Your task to perform on an android device: Open calendar and show me the first week of next month Image 0: 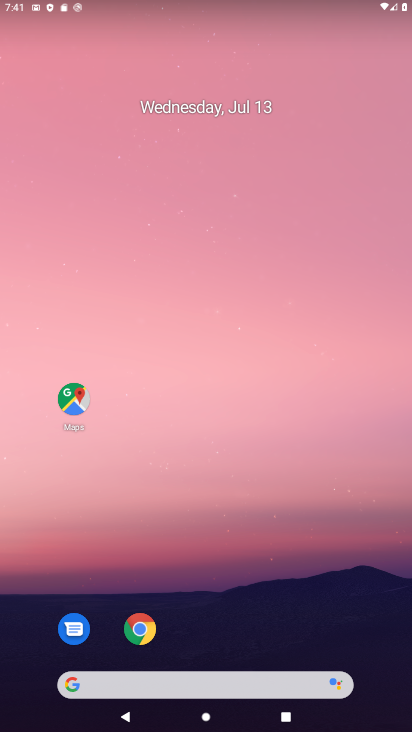
Step 0: drag from (216, 645) to (226, 114)
Your task to perform on an android device: Open calendar and show me the first week of next month Image 1: 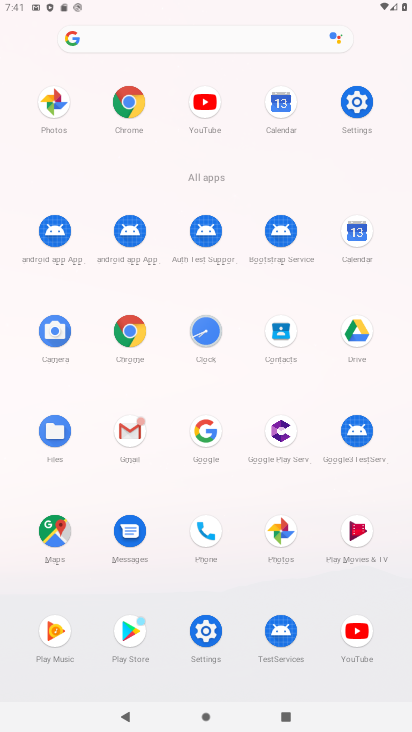
Step 1: click (355, 233)
Your task to perform on an android device: Open calendar and show me the first week of next month Image 2: 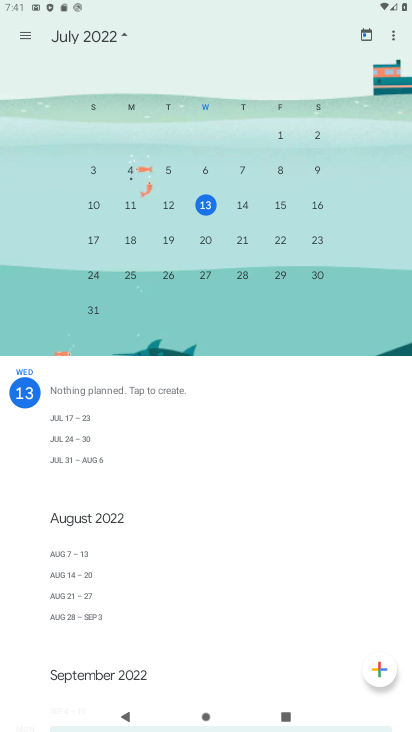
Step 2: click (284, 205)
Your task to perform on an android device: Open calendar and show me the first week of next month Image 3: 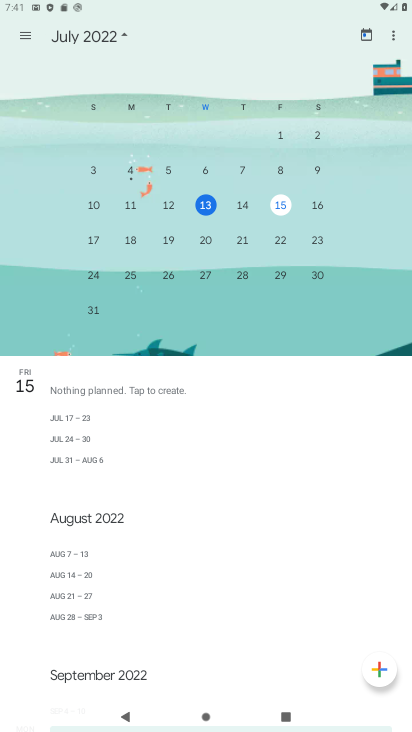
Step 3: task complete